Your task to perform on an android device: clear all cookies in the chrome app Image 0: 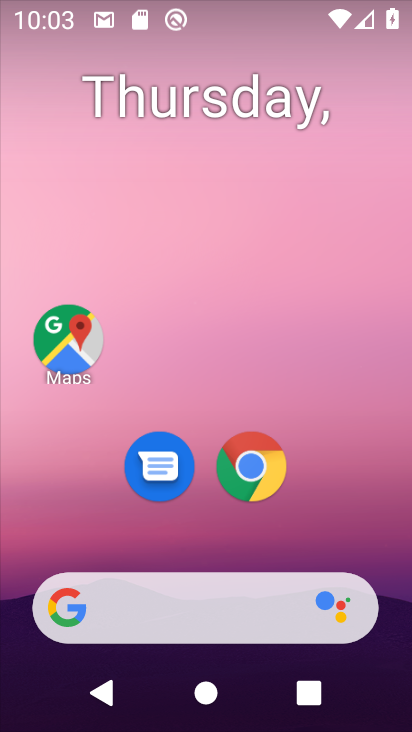
Step 0: click (239, 486)
Your task to perform on an android device: clear all cookies in the chrome app Image 1: 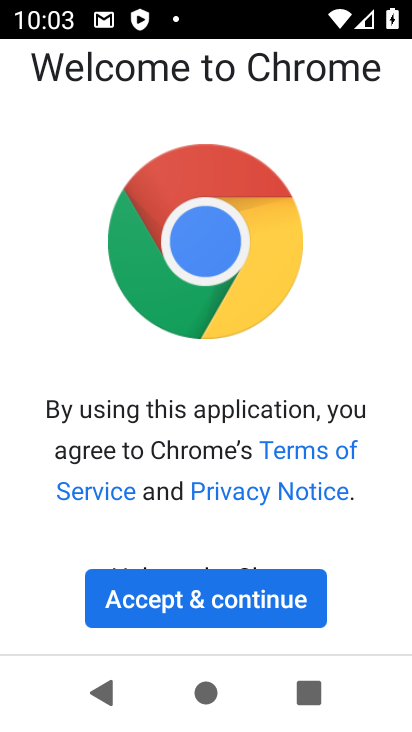
Step 1: click (238, 587)
Your task to perform on an android device: clear all cookies in the chrome app Image 2: 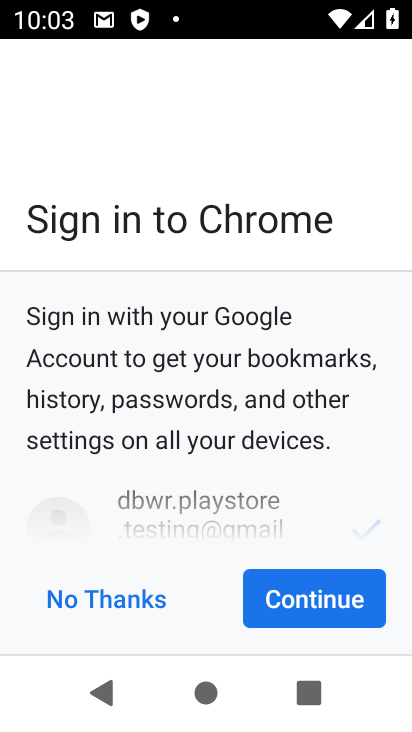
Step 2: click (283, 599)
Your task to perform on an android device: clear all cookies in the chrome app Image 3: 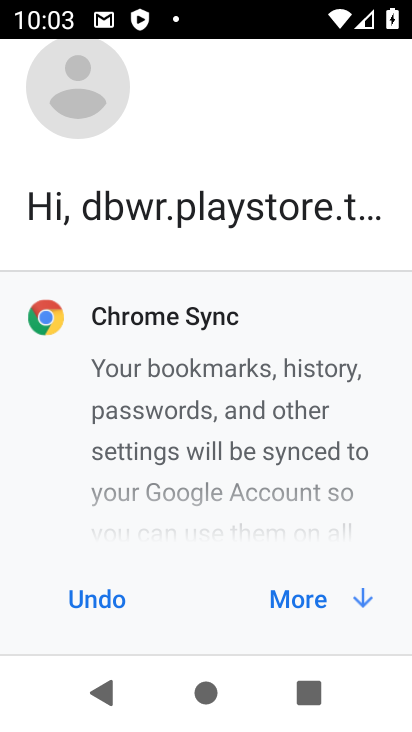
Step 3: click (328, 594)
Your task to perform on an android device: clear all cookies in the chrome app Image 4: 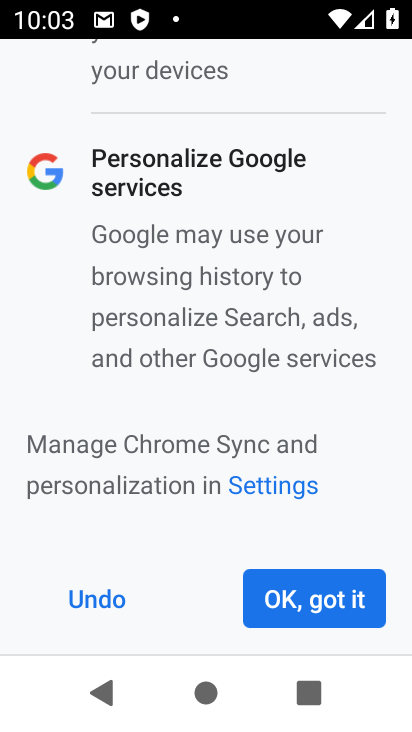
Step 4: click (313, 589)
Your task to perform on an android device: clear all cookies in the chrome app Image 5: 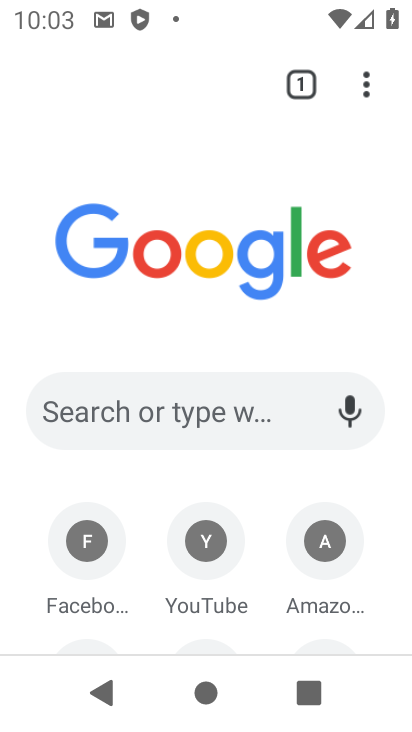
Step 5: drag from (364, 97) to (115, 329)
Your task to perform on an android device: clear all cookies in the chrome app Image 6: 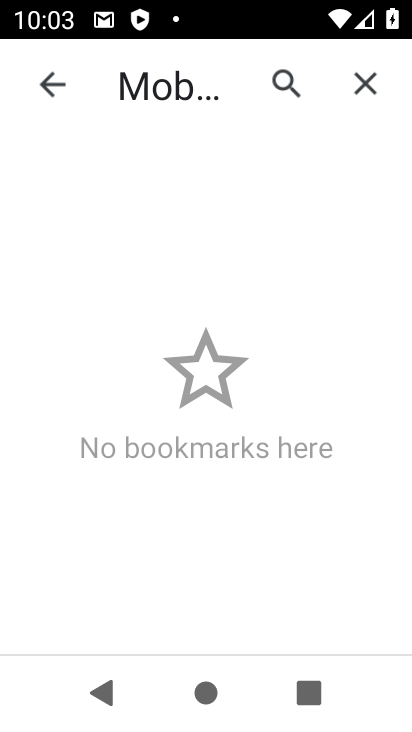
Step 6: click (352, 78)
Your task to perform on an android device: clear all cookies in the chrome app Image 7: 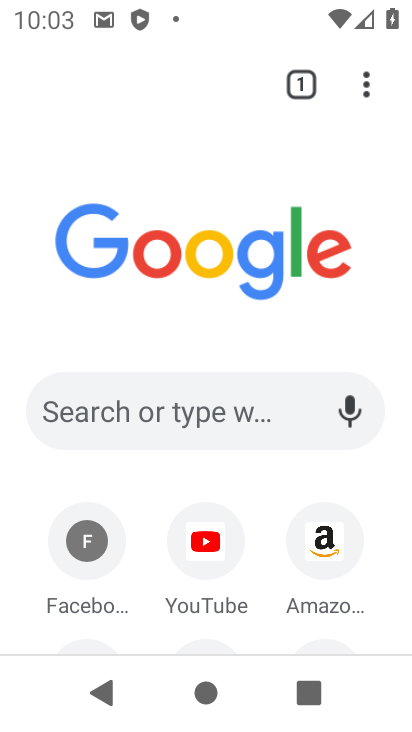
Step 7: drag from (369, 73) to (98, 454)
Your task to perform on an android device: clear all cookies in the chrome app Image 8: 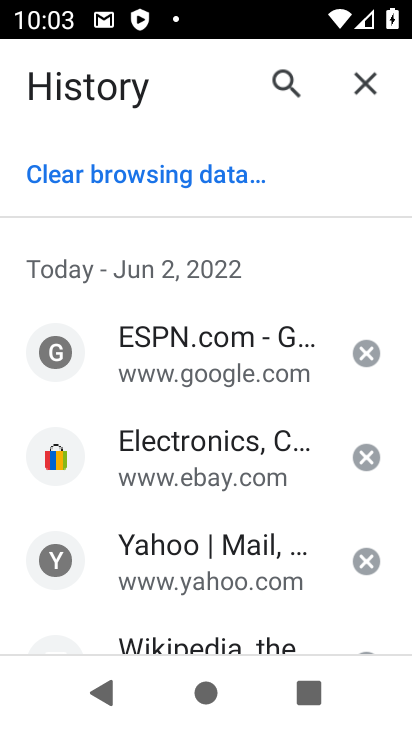
Step 8: click (89, 183)
Your task to perform on an android device: clear all cookies in the chrome app Image 9: 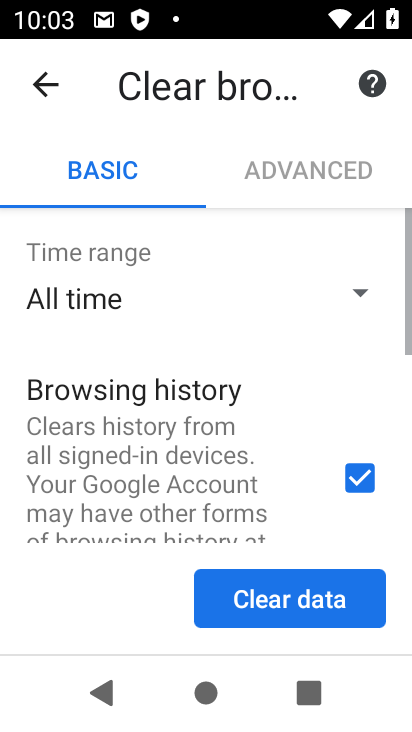
Step 9: drag from (198, 419) to (168, 137)
Your task to perform on an android device: clear all cookies in the chrome app Image 10: 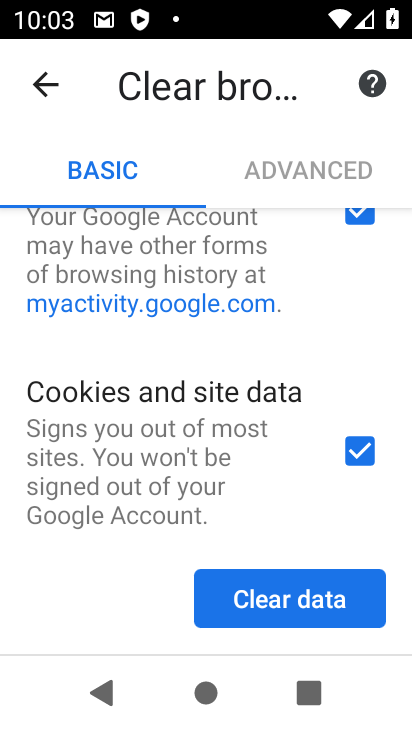
Step 10: drag from (265, 559) to (242, 222)
Your task to perform on an android device: clear all cookies in the chrome app Image 11: 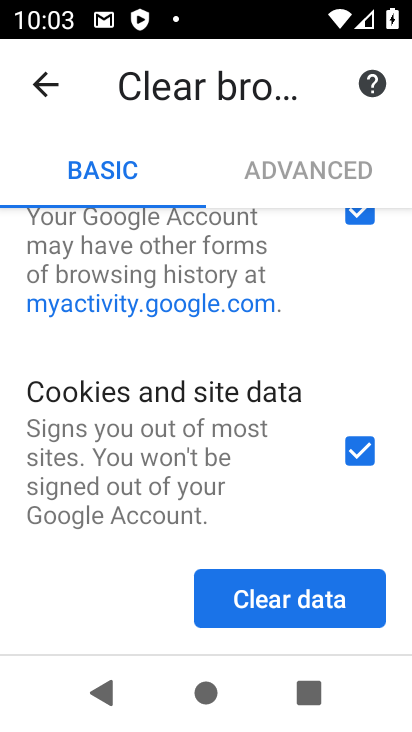
Step 11: drag from (231, 515) to (223, 234)
Your task to perform on an android device: clear all cookies in the chrome app Image 12: 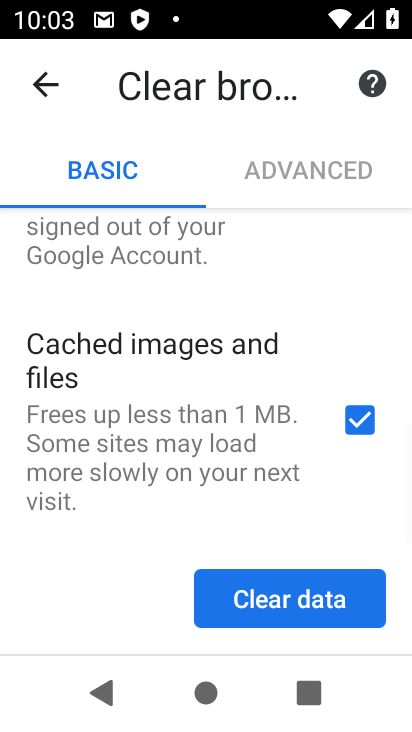
Step 12: click (274, 588)
Your task to perform on an android device: clear all cookies in the chrome app Image 13: 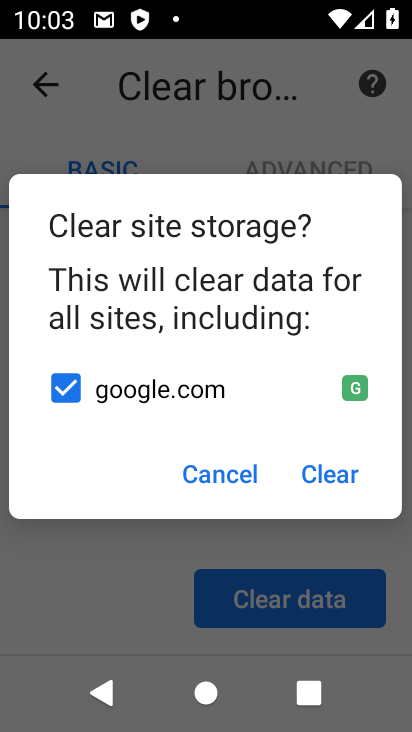
Step 13: click (314, 475)
Your task to perform on an android device: clear all cookies in the chrome app Image 14: 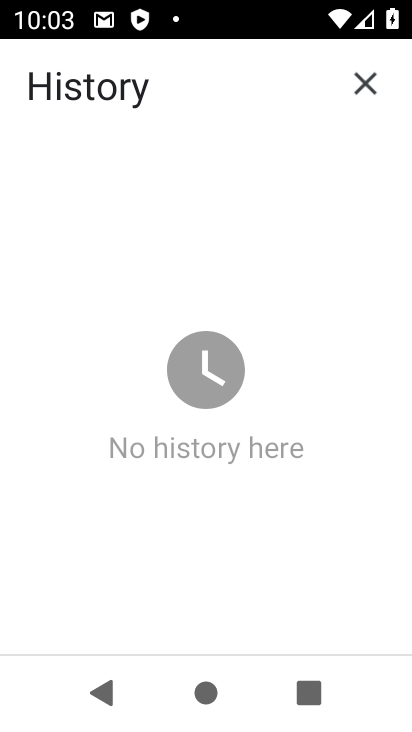
Step 14: task complete